Your task to perform on an android device: When is my next meeting? Image 0: 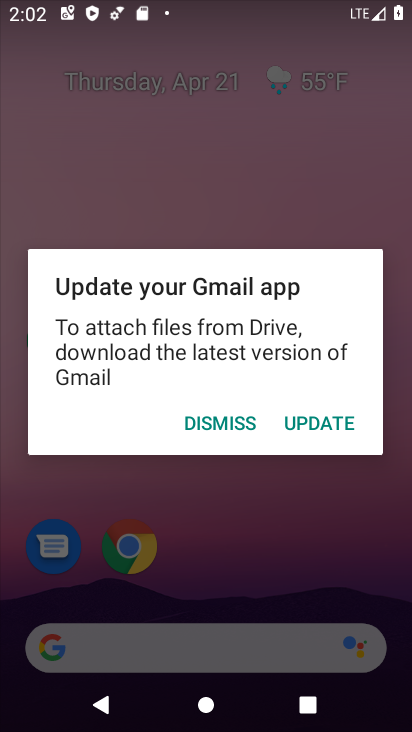
Step 0: press home button
Your task to perform on an android device: When is my next meeting? Image 1: 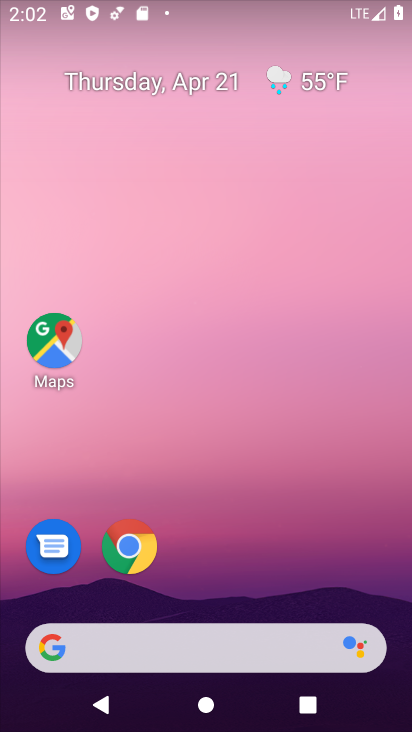
Step 1: click (180, 73)
Your task to perform on an android device: When is my next meeting? Image 2: 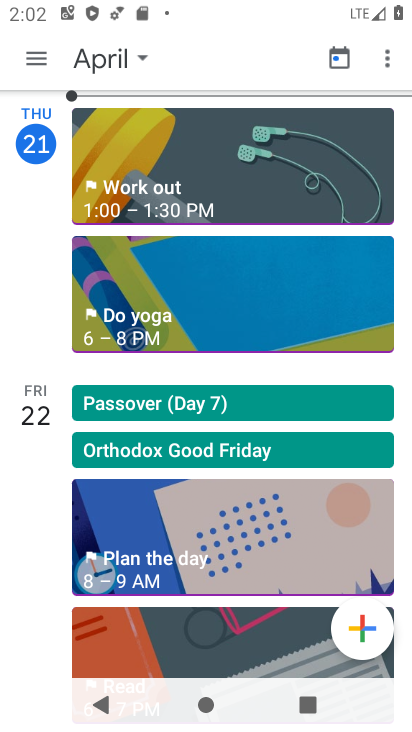
Step 2: click (17, 49)
Your task to perform on an android device: When is my next meeting? Image 3: 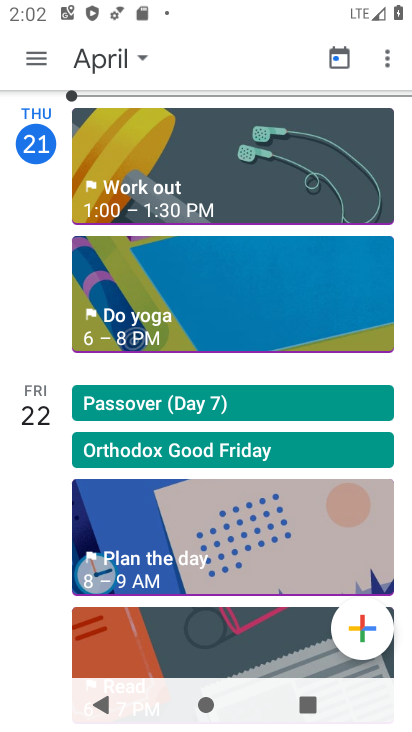
Step 3: click (35, 49)
Your task to perform on an android device: When is my next meeting? Image 4: 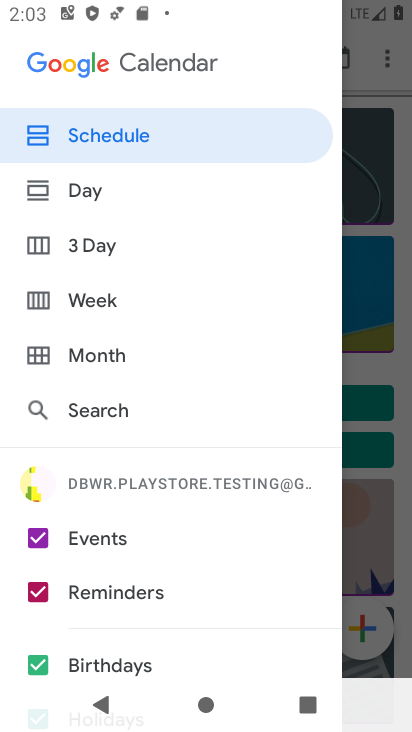
Step 4: task complete